Your task to perform on an android device: Go to internet settings Image 0: 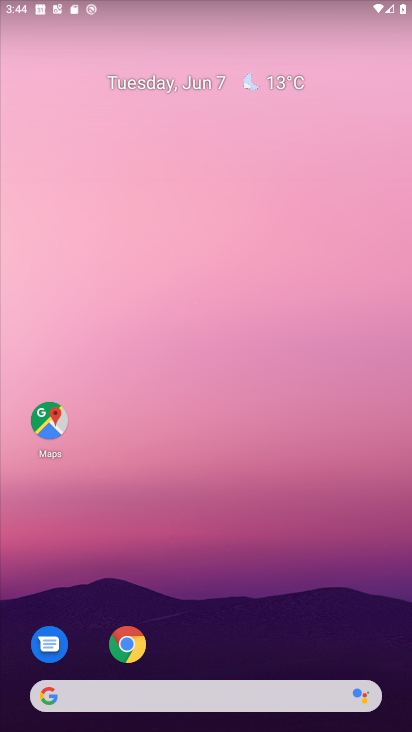
Step 0: drag from (342, 612) to (337, 150)
Your task to perform on an android device: Go to internet settings Image 1: 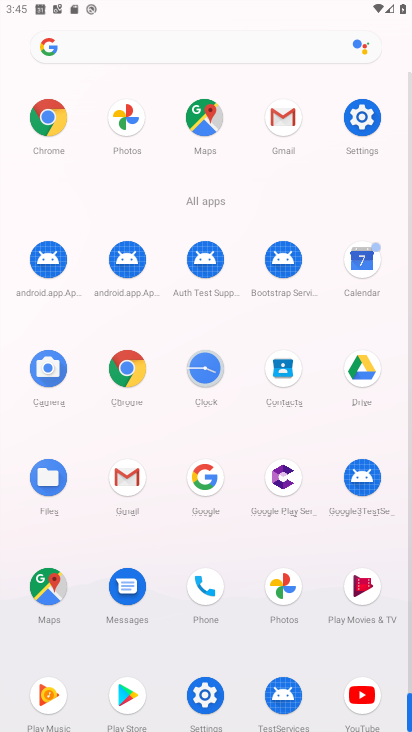
Step 1: click (361, 140)
Your task to perform on an android device: Go to internet settings Image 2: 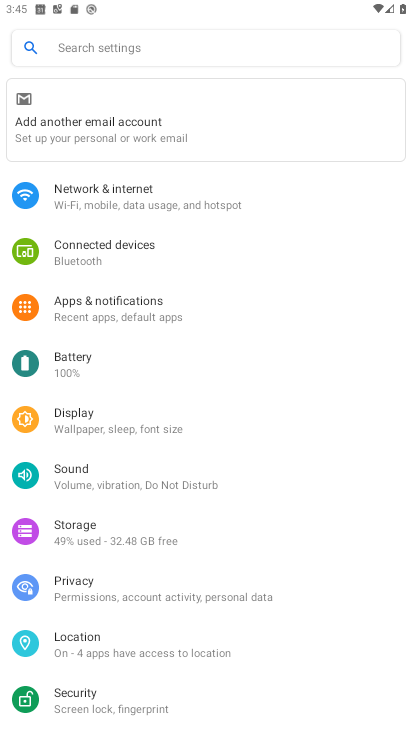
Step 2: drag from (344, 375) to (346, 261)
Your task to perform on an android device: Go to internet settings Image 3: 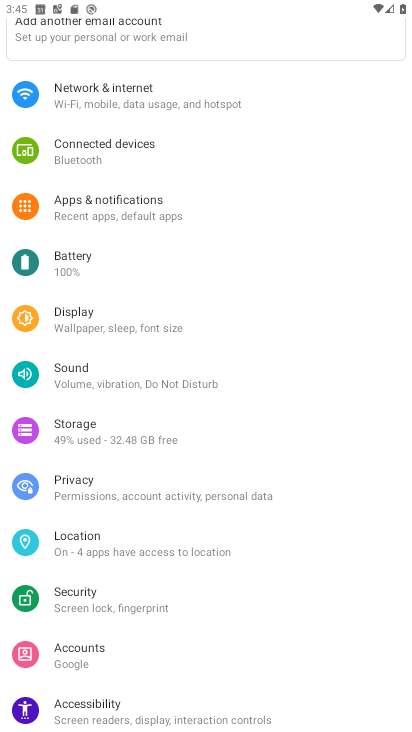
Step 3: drag from (340, 446) to (340, 314)
Your task to perform on an android device: Go to internet settings Image 4: 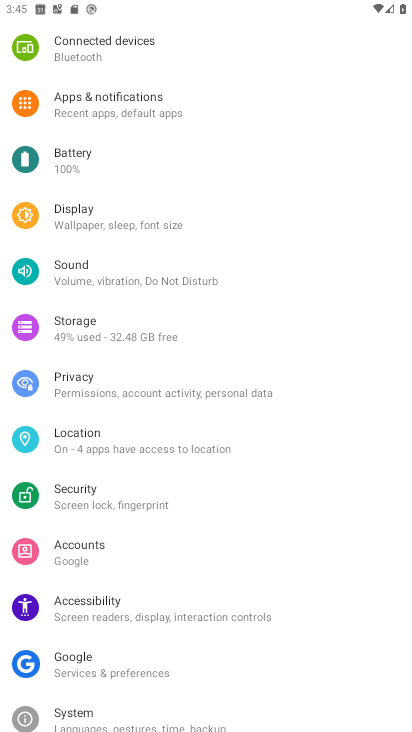
Step 4: drag from (320, 457) to (330, 265)
Your task to perform on an android device: Go to internet settings Image 5: 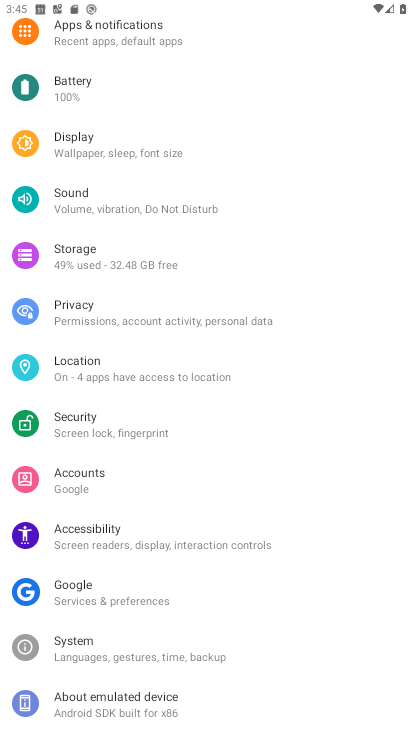
Step 5: drag from (336, 214) to (322, 396)
Your task to perform on an android device: Go to internet settings Image 6: 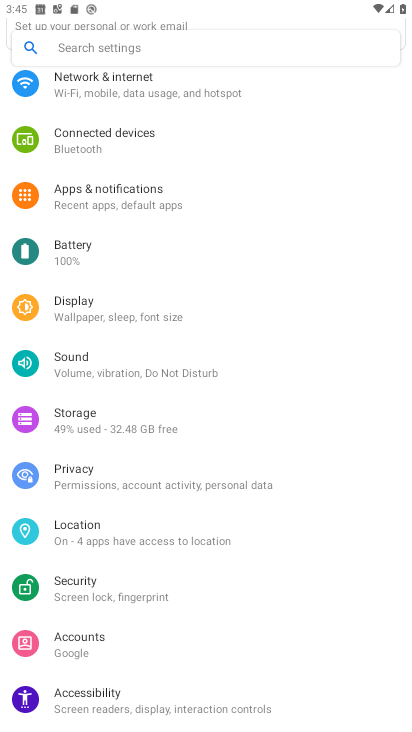
Step 6: drag from (322, 202) to (320, 400)
Your task to perform on an android device: Go to internet settings Image 7: 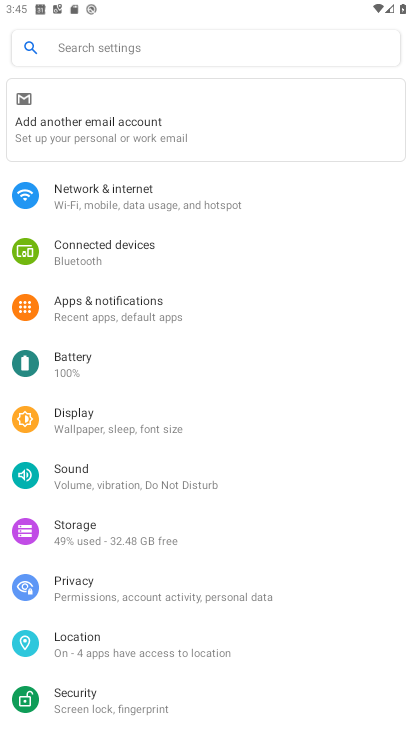
Step 7: click (247, 200)
Your task to perform on an android device: Go to internet settings Image 8: 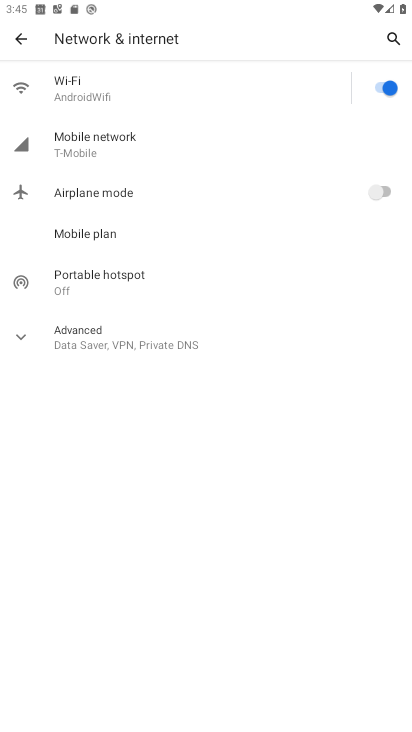
Step 8: task complete